Your task to perform on an android device: toggle wifi Image 0: 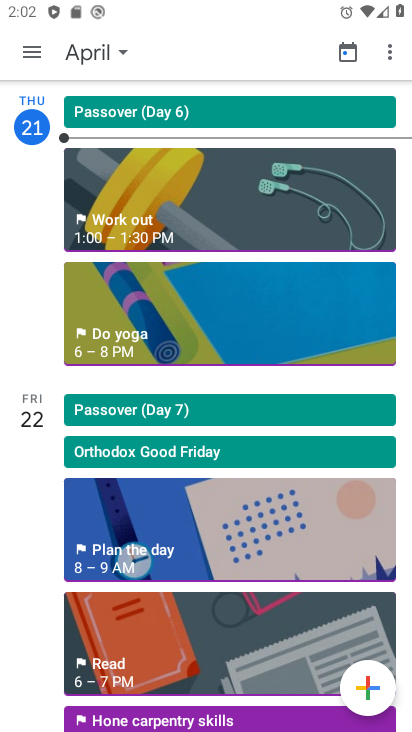
Step 0: press home button
Your task to perform on an android device: toggle wifi Image 1: 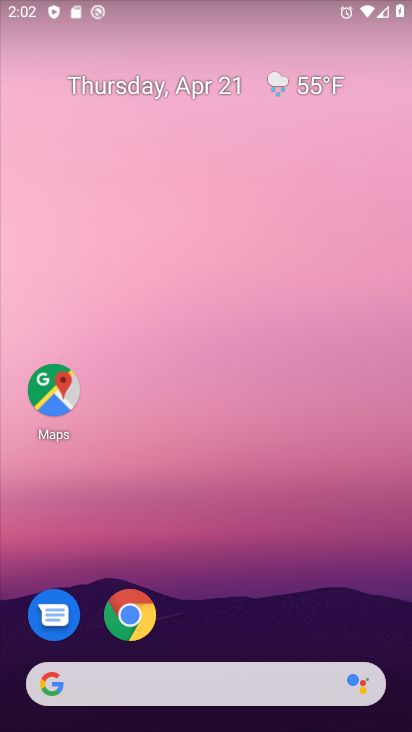
Step 1: drag from (203, 659) to (276, 213)
Your task to perform on an android device: toggle wifi Image 2: 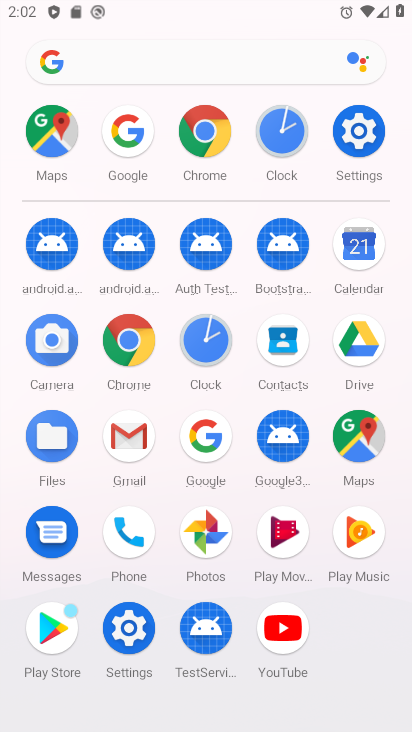
Step 2: click (356, 127)
Your task to perform on an android device: toggle wifi Image 3: 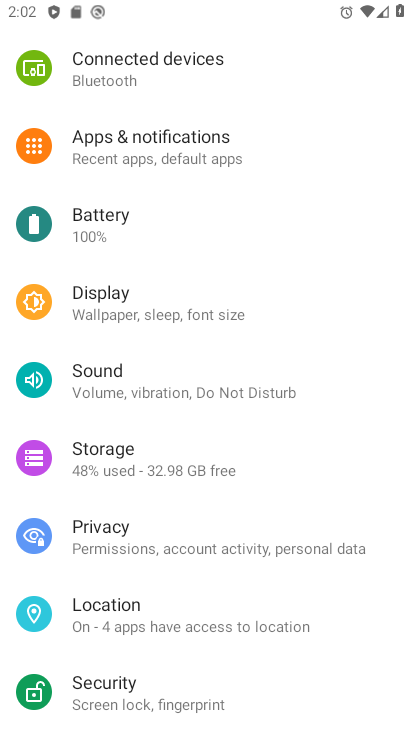
Step 3: drag from (206, 84) to (176, 501)
Your task to perform on an android device: toggle wifi Image 4: 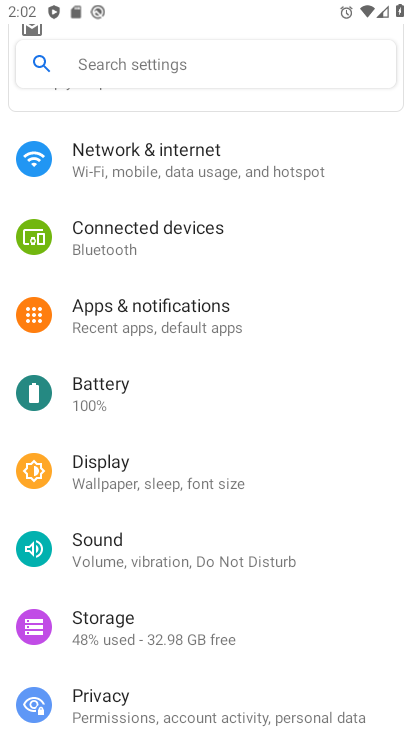
Step 4: click (125, 163)
Your task to perform on an android device: toggle wifi Image 5: 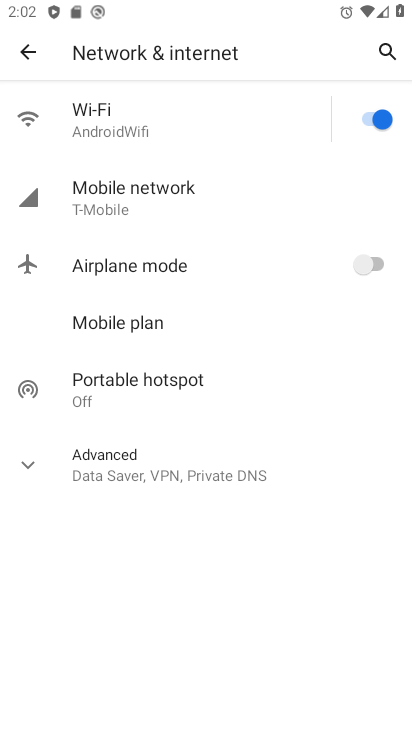
Step 5: click (111, 118)
Your task to perform on an android device: toggle wifi Image 6: 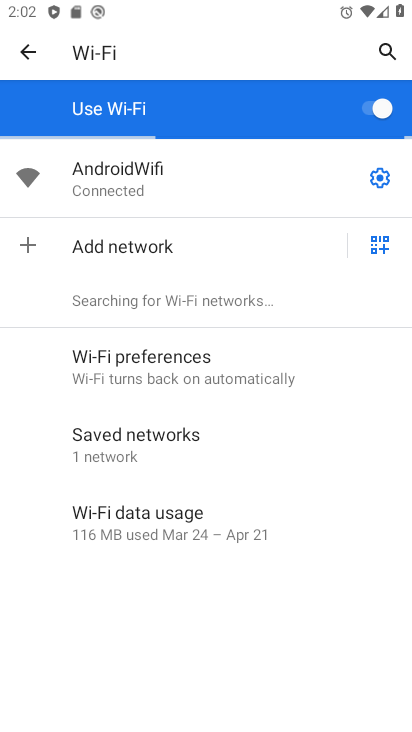
Step 6: click (367, 110)
Your task to perform on an android device: toggle wifi Image 7: 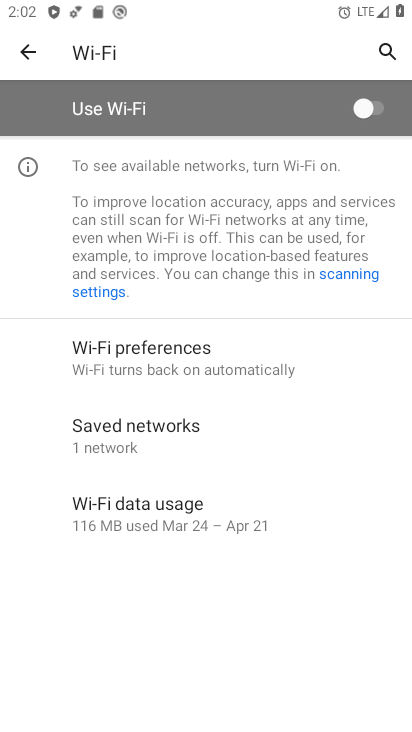
Step 7: task complete